Your task to perform on an android device: Go to wifi settings Image 0: 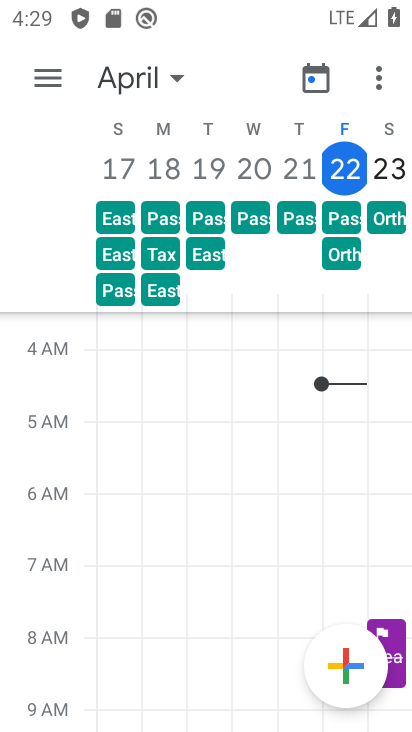
Step 0: press home button
Your task to perform on an android device: Go to wifi settings Image 1: 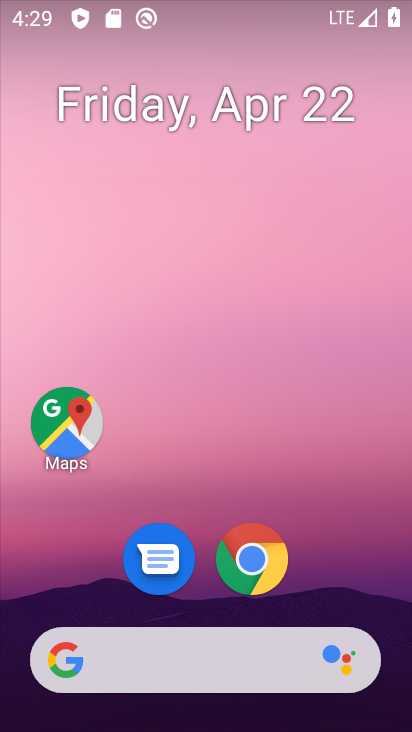
Step 1: drag from (354, 586) to (238, 28)
Your task to perform on an android device: Go to wifi settings Image 2: 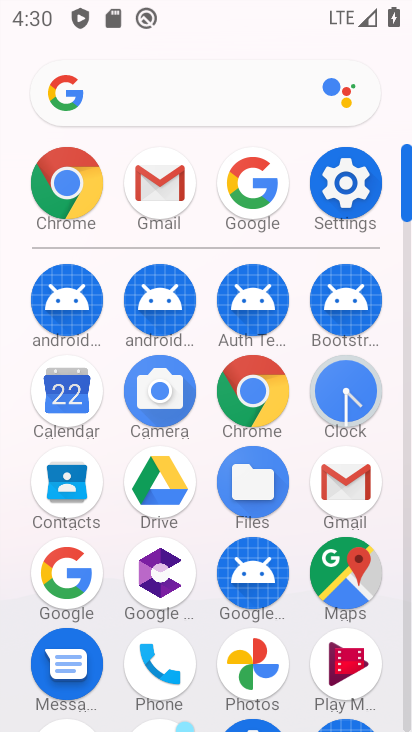
Step 2: click (354, 184)
Your task to perform on an android device: Go to wifi settings Image 3: 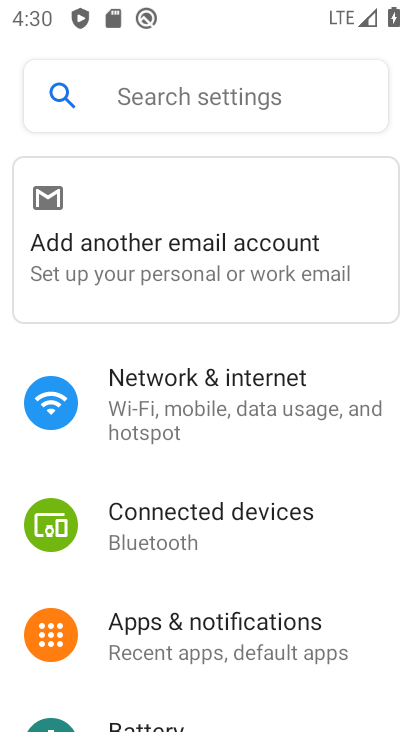
Step 3: click (228, 389)
Your task to perform on an android device: Go to wifi settings Image 4: 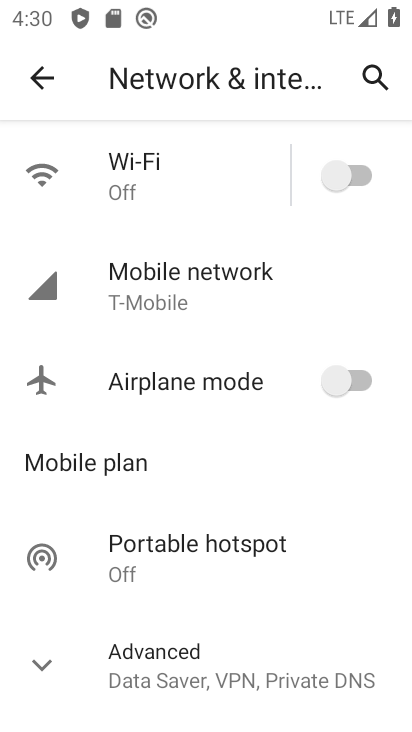
Step 4: click (152, 174)
Your task to perform on an android device: Go to wifi settings Image 5: 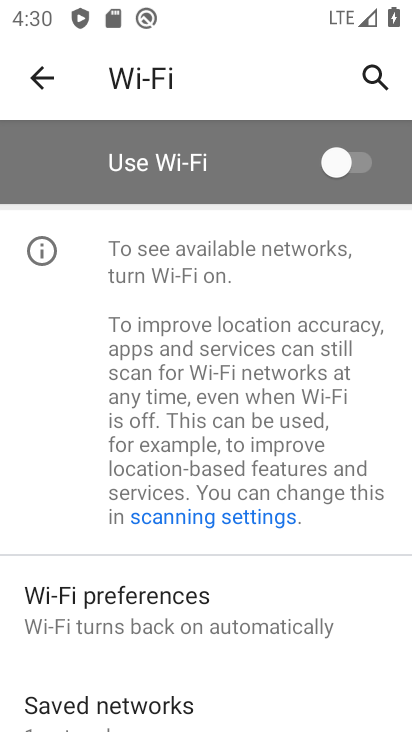
Step 5: task complete